Your task to perform on an android device: See recent photos Image 0: 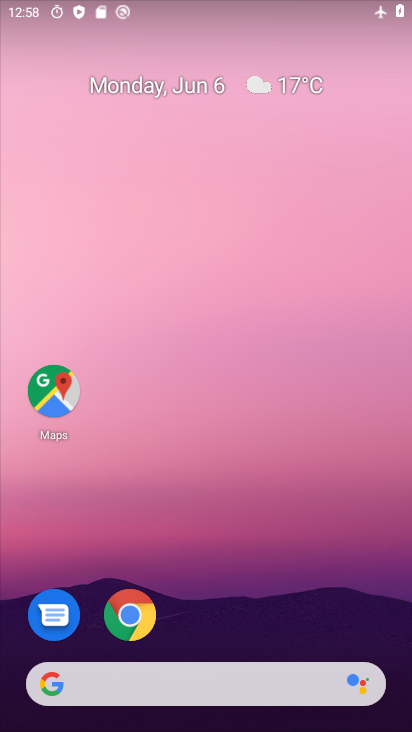
Step 0: click (276, 225)
Your task to perform on an android device: See recent photos Image 1: 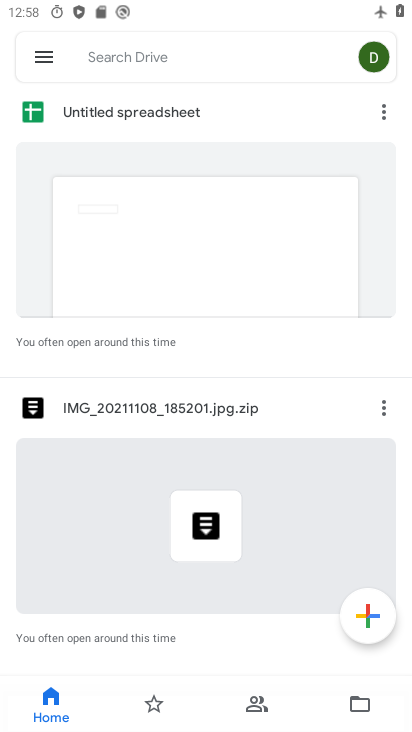
Step 1: press home button
Your task to perform on an android device: See recent photos Image 2: 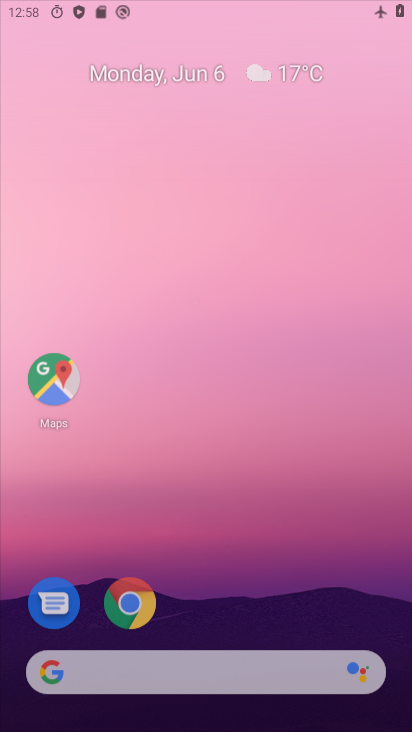
Step 2: drag from (232, 564) to (337, 25)
Your task to perform on an android device: See recent photos Image 3: 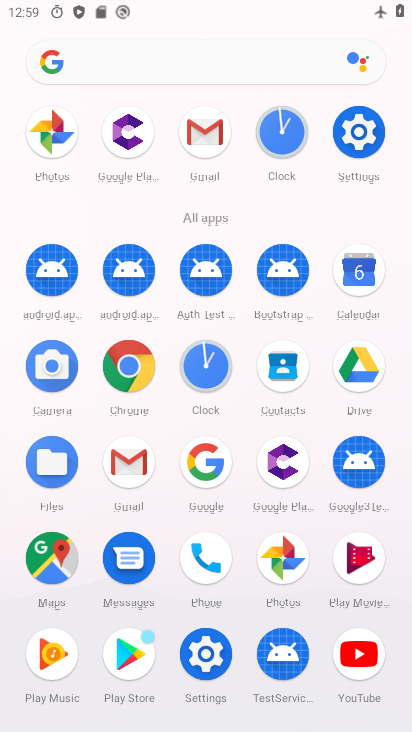
Step 3: click (158, 57)
Your task to perform on an android device: See recent photos Image 4: 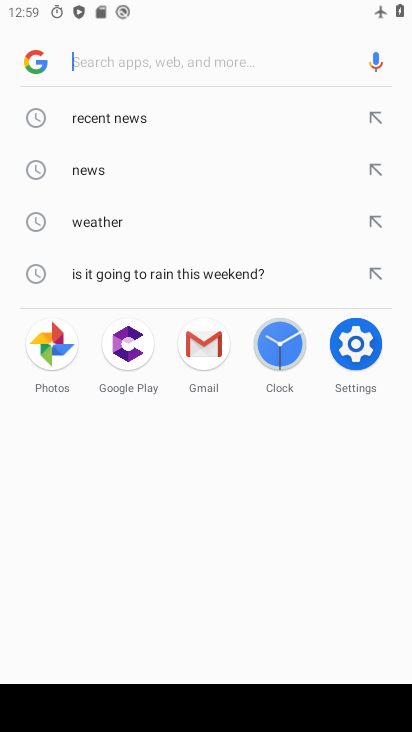
Step 4: press back button
Your task to perform on an android device: See recent photos Image 5: 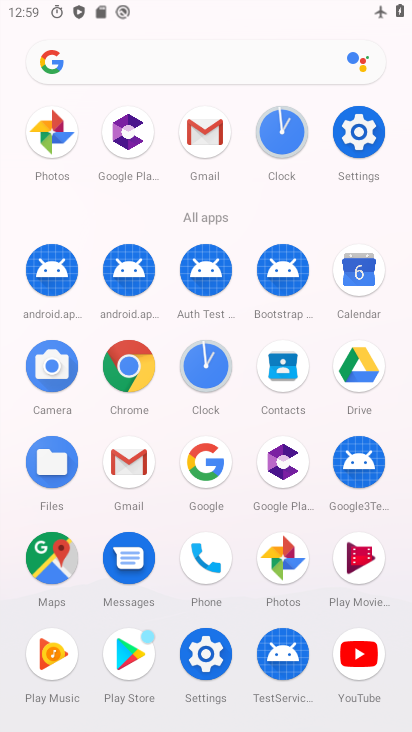
Step 5: press home button
Your task to perform on an android device: See recent photos Image 6: 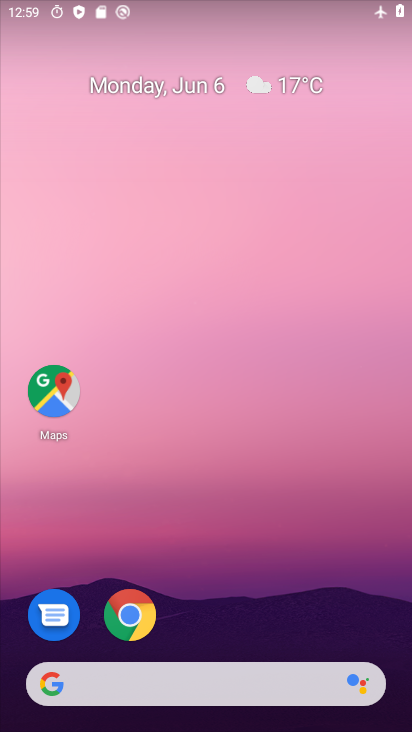
Step 6: drag from (180, 592) to (261, 132)
Your task to perform on an android device: See recent photos Image 7: 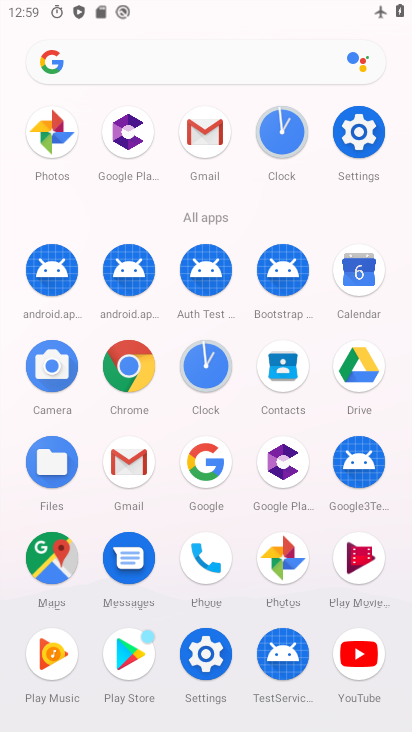
Step 7: click (276, 562)
Your task to perform on an android device: See recent photos Image 8: 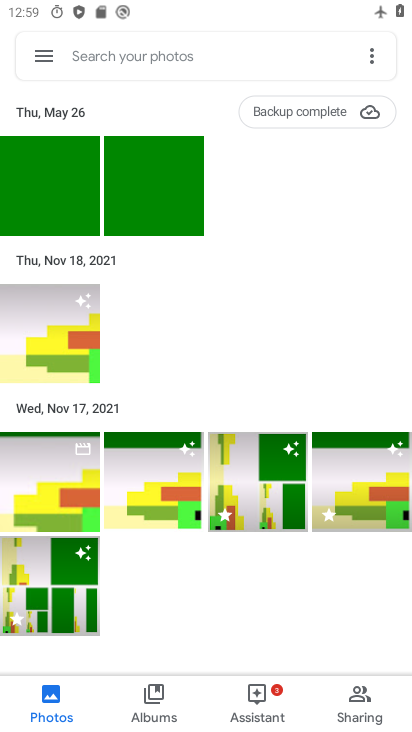
Step 8: click (48, 464)
Your task to perform on an android device: See recent photos Image 9: 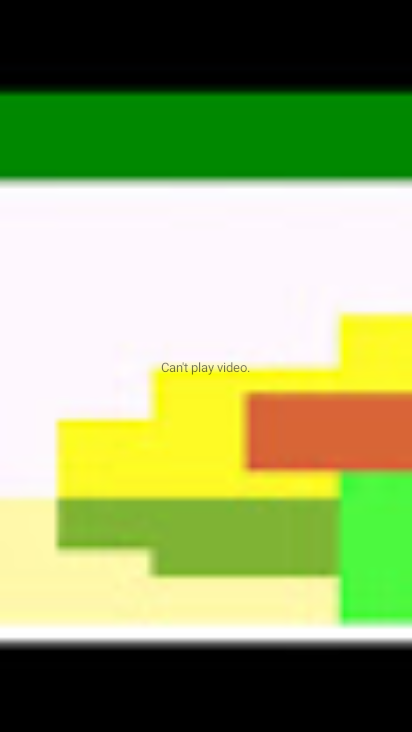
Step 9: task complete